Your task to perform on an android device: Open Maps and search for coffee Image 0: 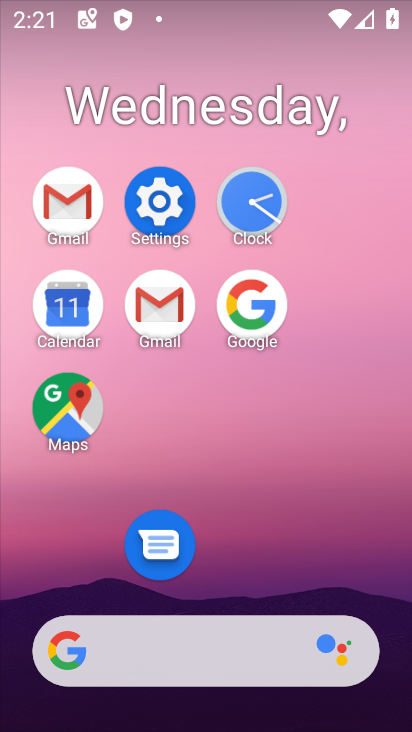
Step 0: click (87, 419)
Your task to perform on an android device: Open Maps and search for coffee Image 1: 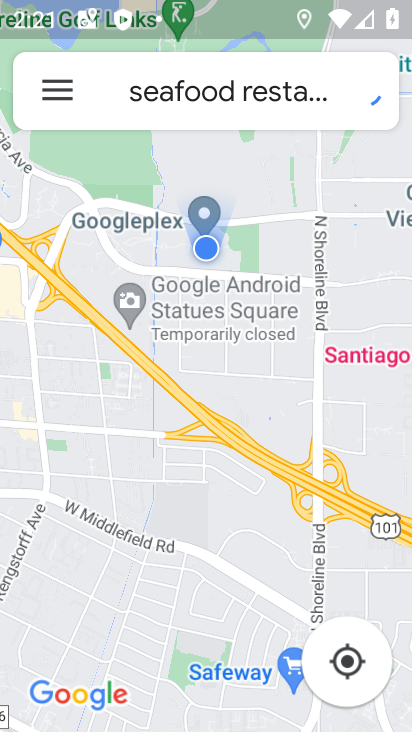
Step 1: click (285, 93)
Your task to perform on an android device: Open Maps and search for coffee Image 2: 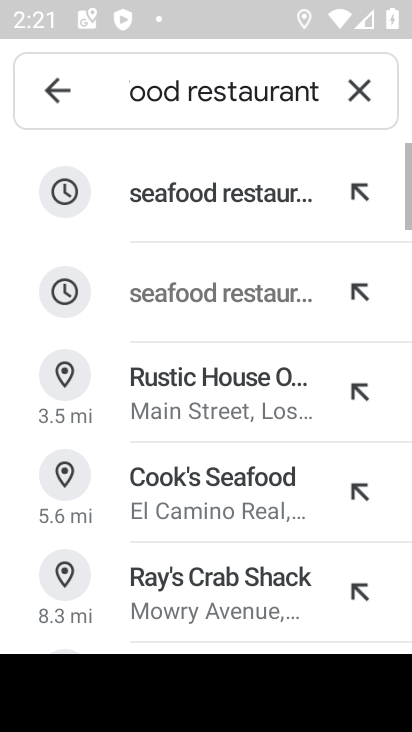
Step 2: click (360, 83)
Your task to perform on an android device: Open Maps and search for coffee Image 3: 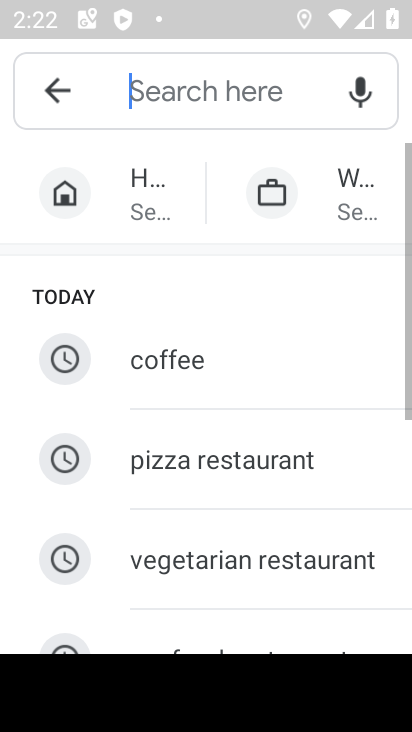
Step 3: click (189, 356)
Your task to perform on an android device: Open Maps and search for coffee Image 4: 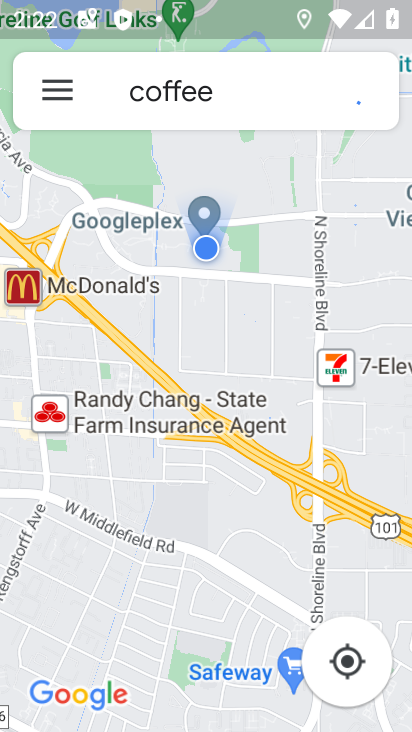
Step 4: task complete